Your task to perform on an android device: Search for "apple airpods pro" on walmart, select the first entry, add it to the cart, then select checkout. Image 0: 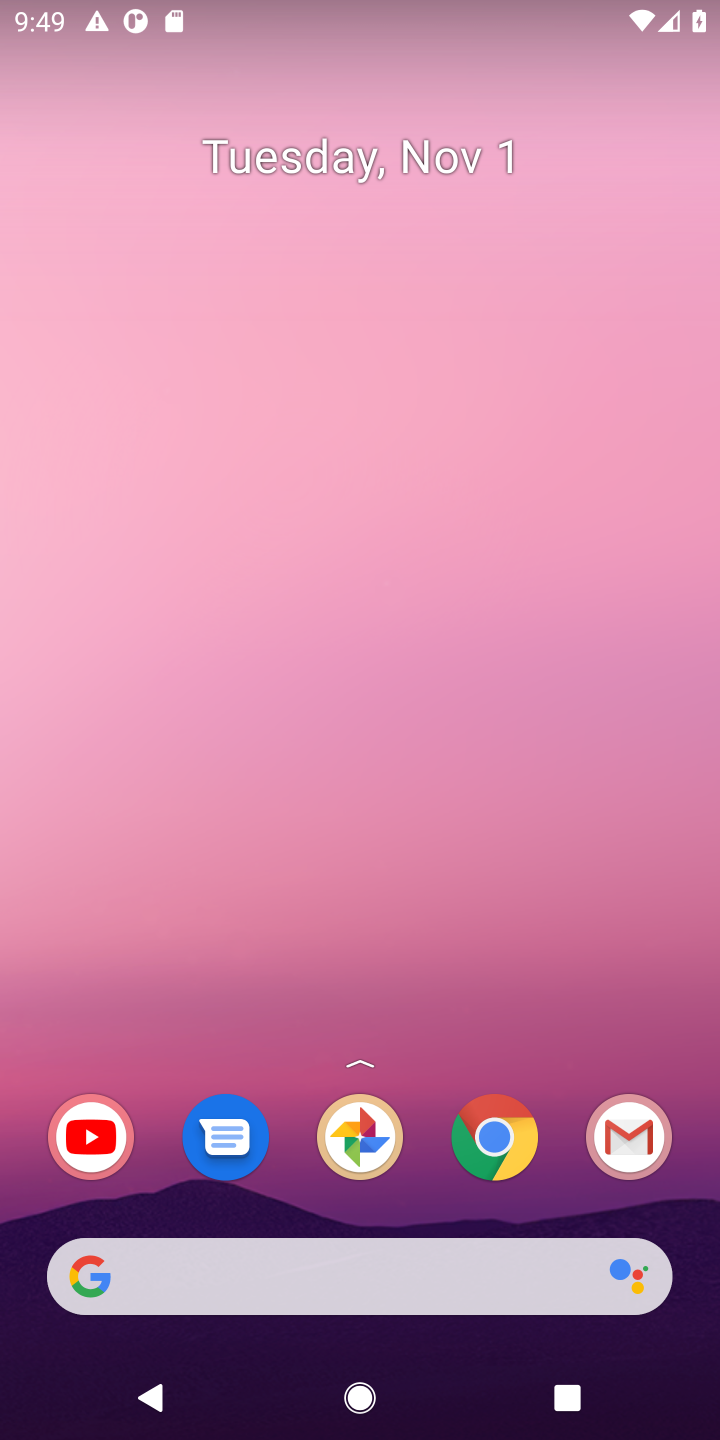
Step 0: click (320, 1259)
Your task to perform on an android device: Search for "apple airpods pro" on walmart, select the first entry, add it to the cart, then select checkout. Image 1: 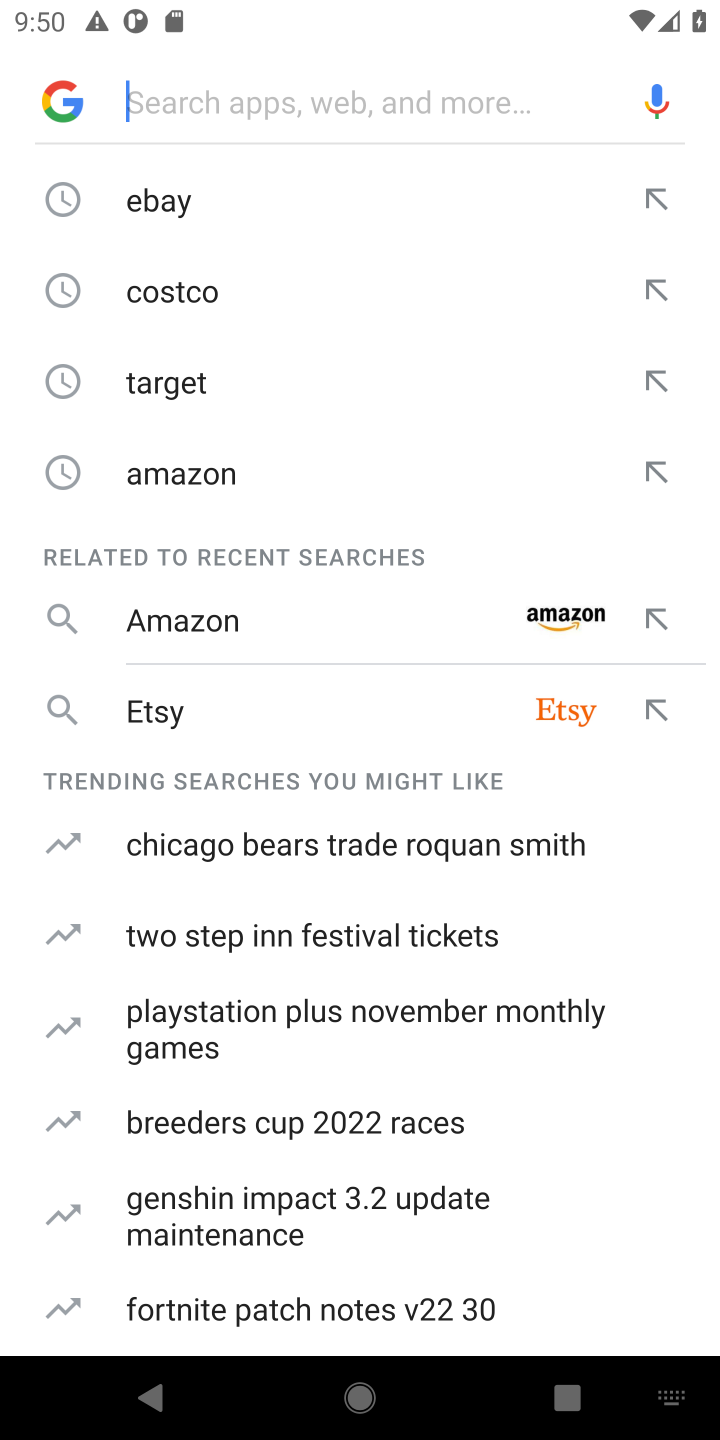
Step 1: type "walmart"
Your task to perform on an android device: Search for "apple airpods pro" on walmart, select the first entry, add it to the cart, then select checkout. Image 2: 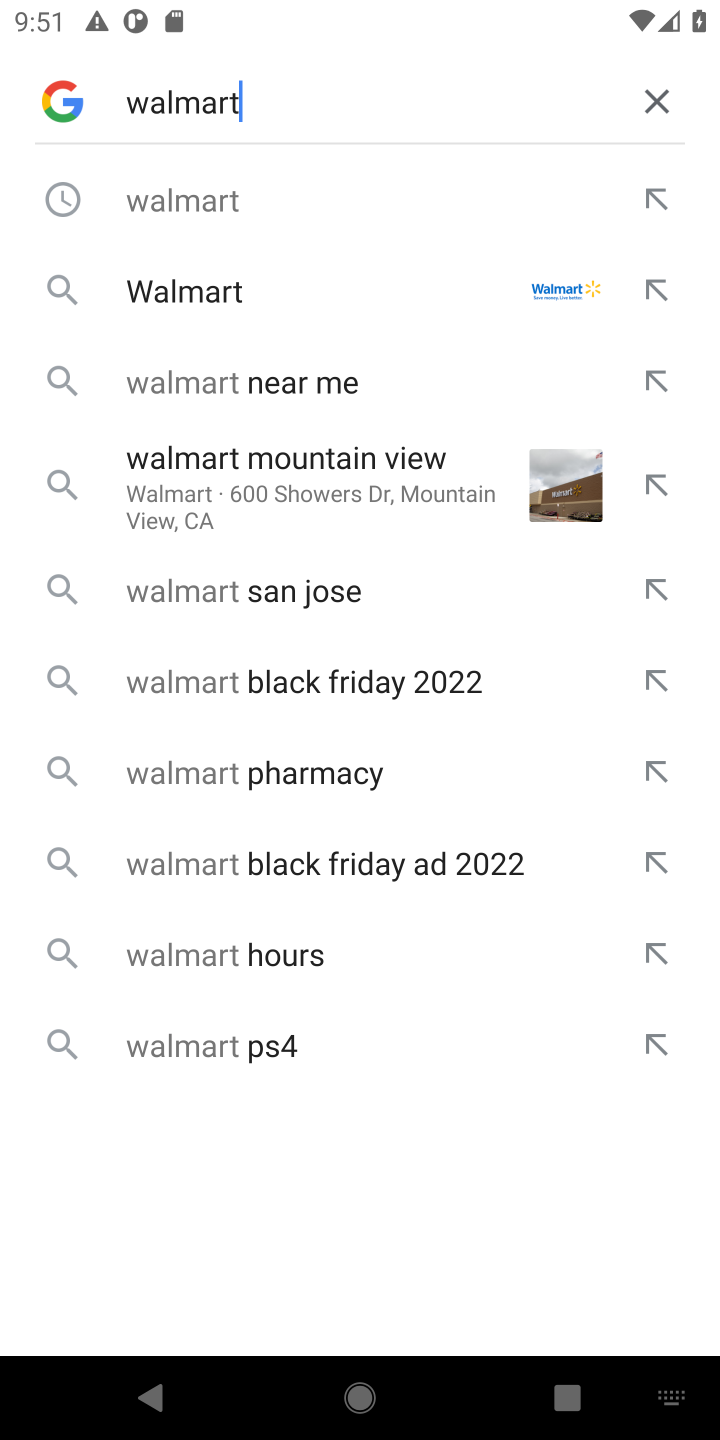
Step 2: click (230, 288)
Your task to perform on an android device: Search for "apple airpods pro" on walmart, select the first entry, add it to the cart, then select checkout. Image 3: 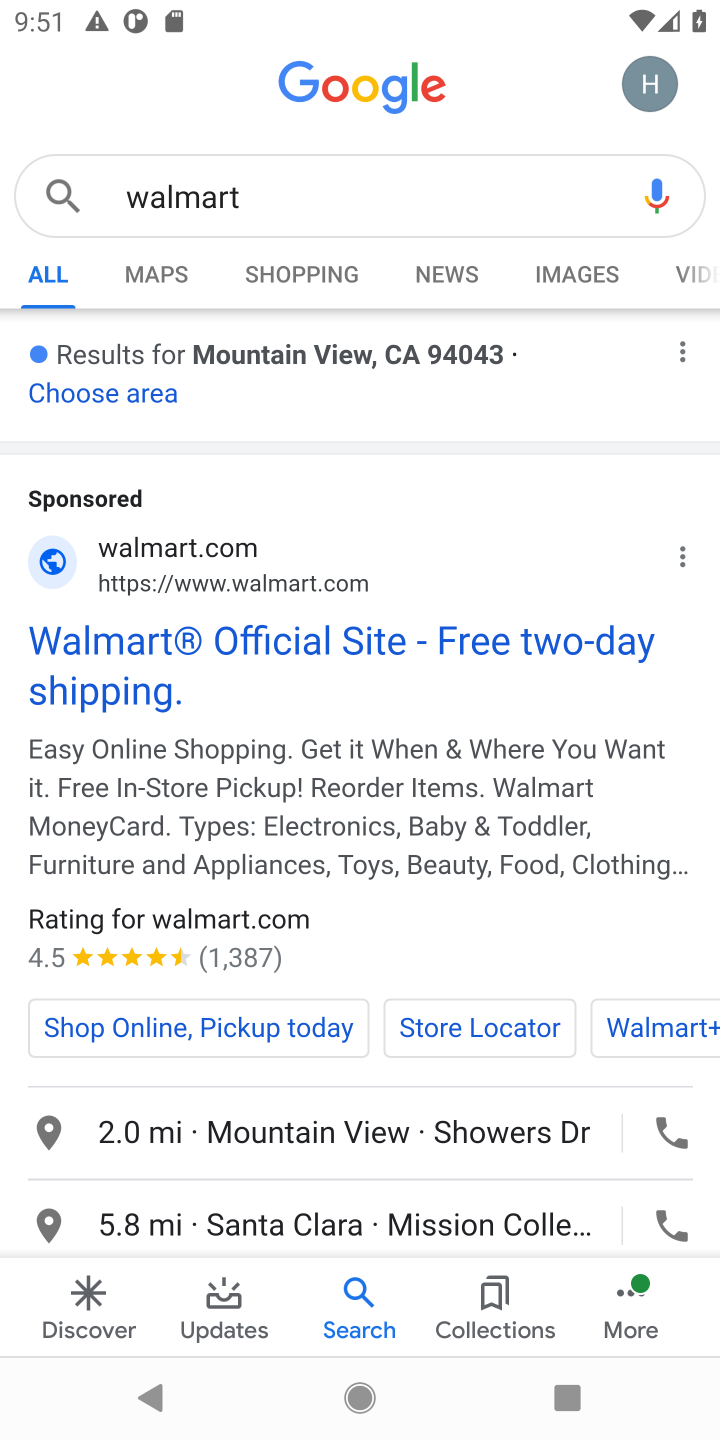
Step 3: click (162, 582)
Your task to perform on an android device: Search for "apple airpods pro" on walmart, select the first entry, add it to the cart, then select checkout. Image 4: 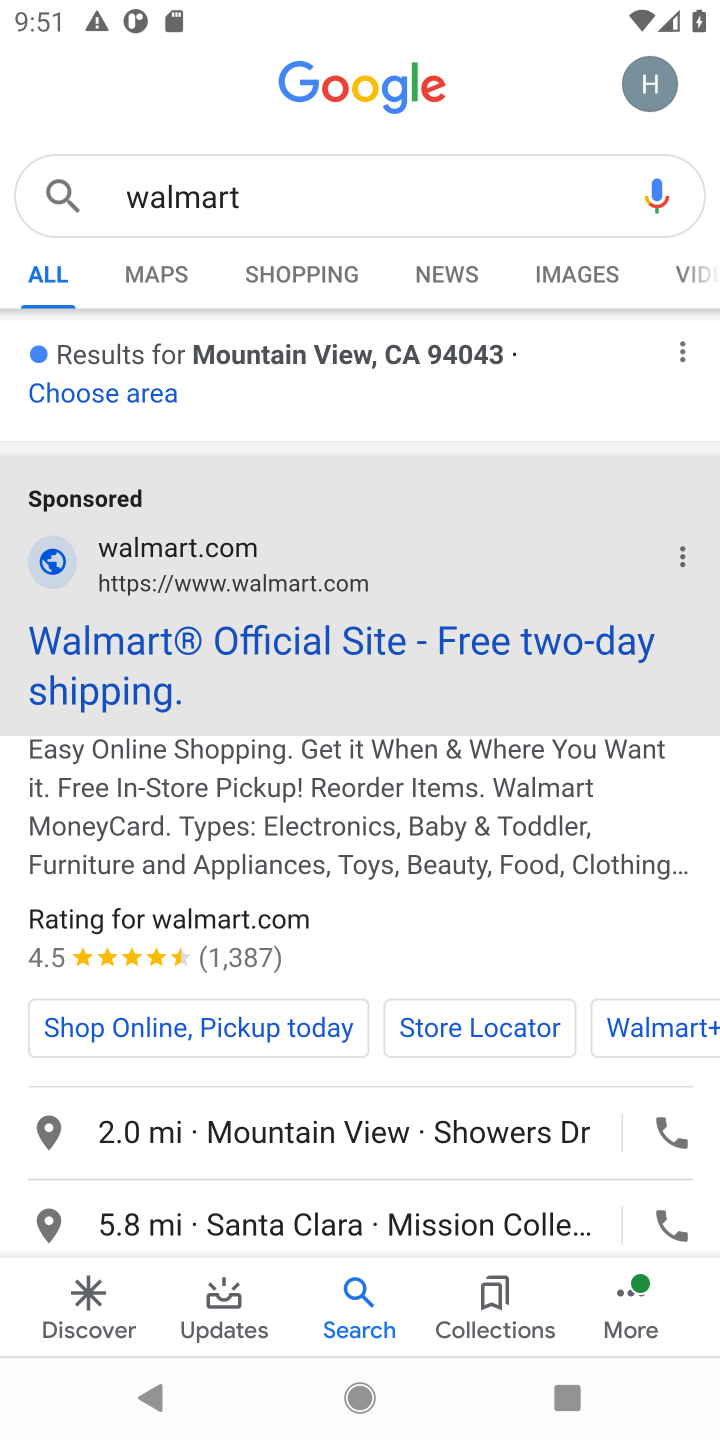
Step 4: click (162, 582)
Your task to perform on an android device: Search for "apple airpods pro" on walmart, select the first entry, add it to the cart, then select checkout. Image 5: 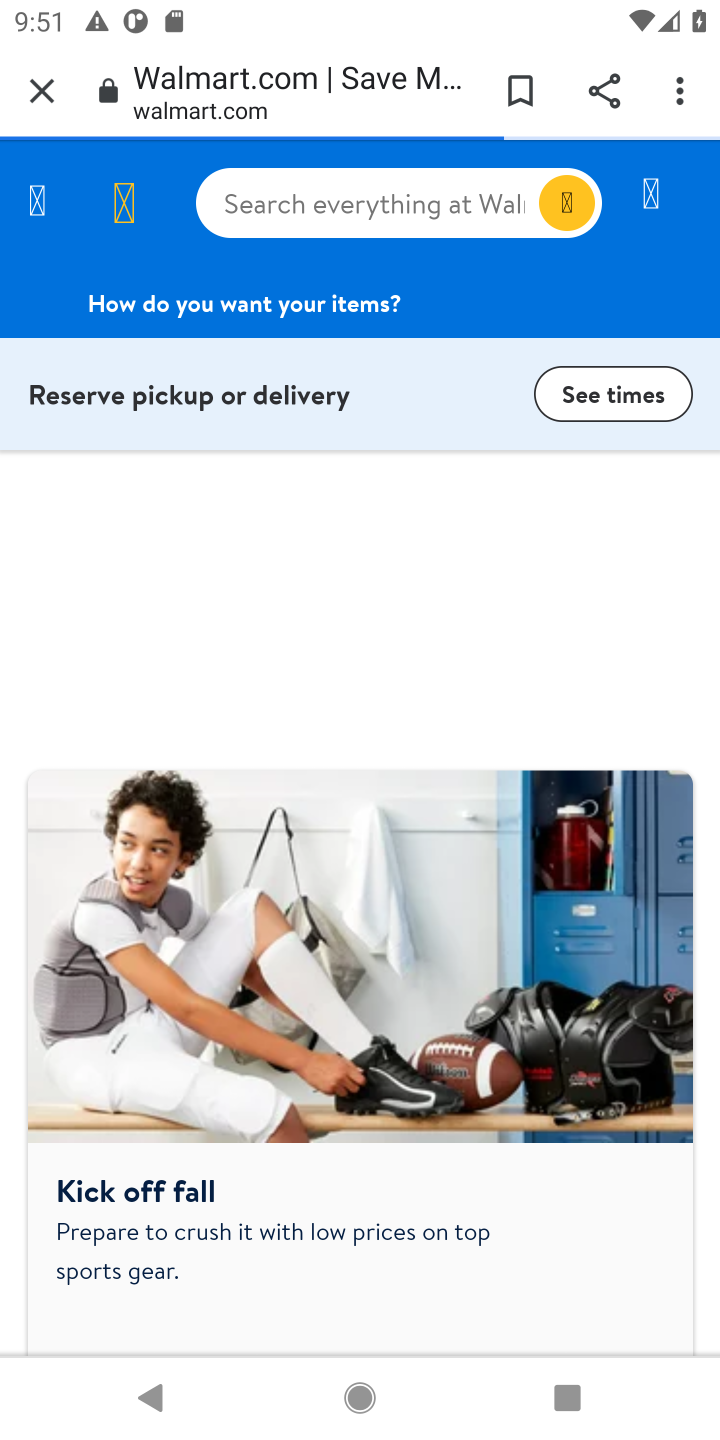
Step 5: click (170, 551)
Your task to perform on an android device: Search for "apple airpods pro" on walmart, select the first entry, add it to the cart, then select checkout. Image 6: 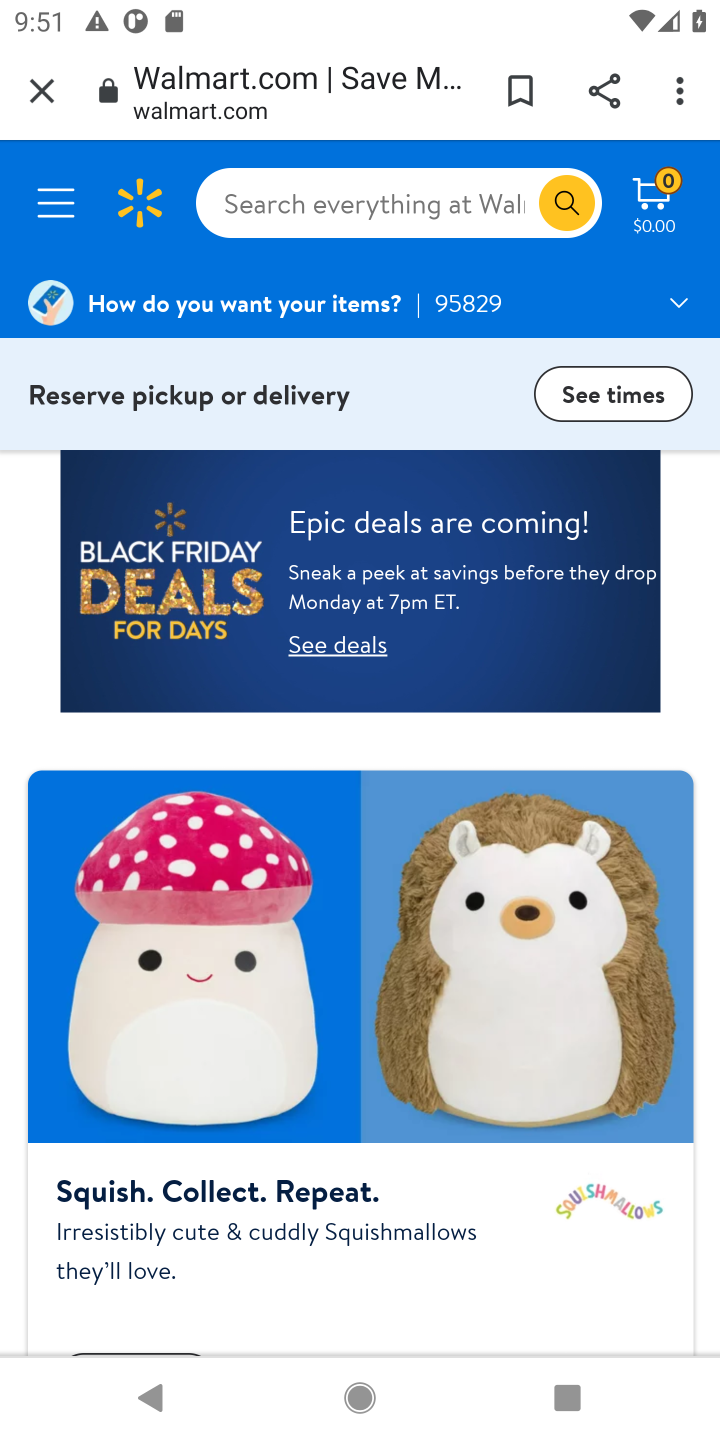
Step 6: click (434, 183)
Your task to perform on an android device: Search for "apple airpods pro" on walmart, select the first entry, add it to the cart, then select checkout. Image 7: 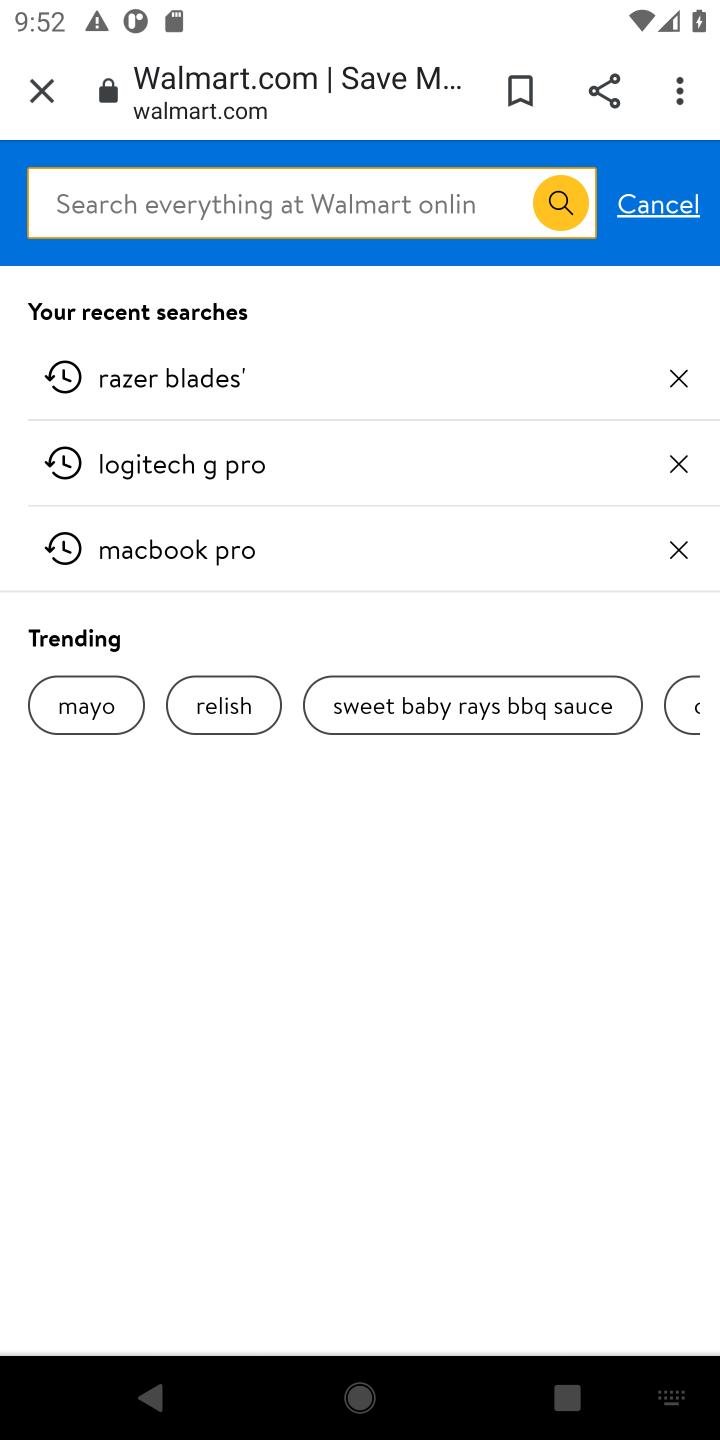
Step 7: type "apple airpods pro"
Your task to perform on an android device: Search for "apple airpods pro" on walmart, select the first entry, add it to the cart, then select checkout. Image 8: 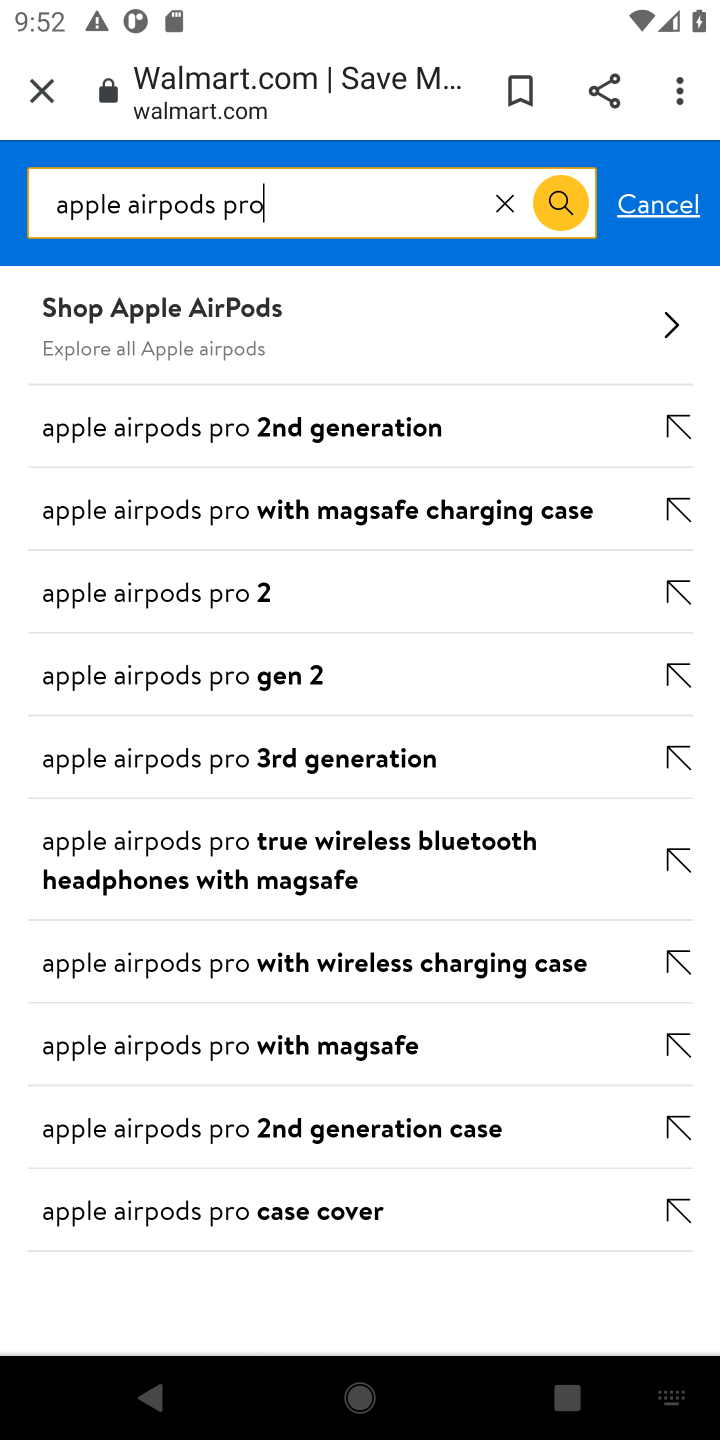
Step 8: click (302, 339)
Your task to perform on an android device: Search for "apple airpods pro" on walmart, select the first entry, add it to the cart, then select checkout. Image 9: 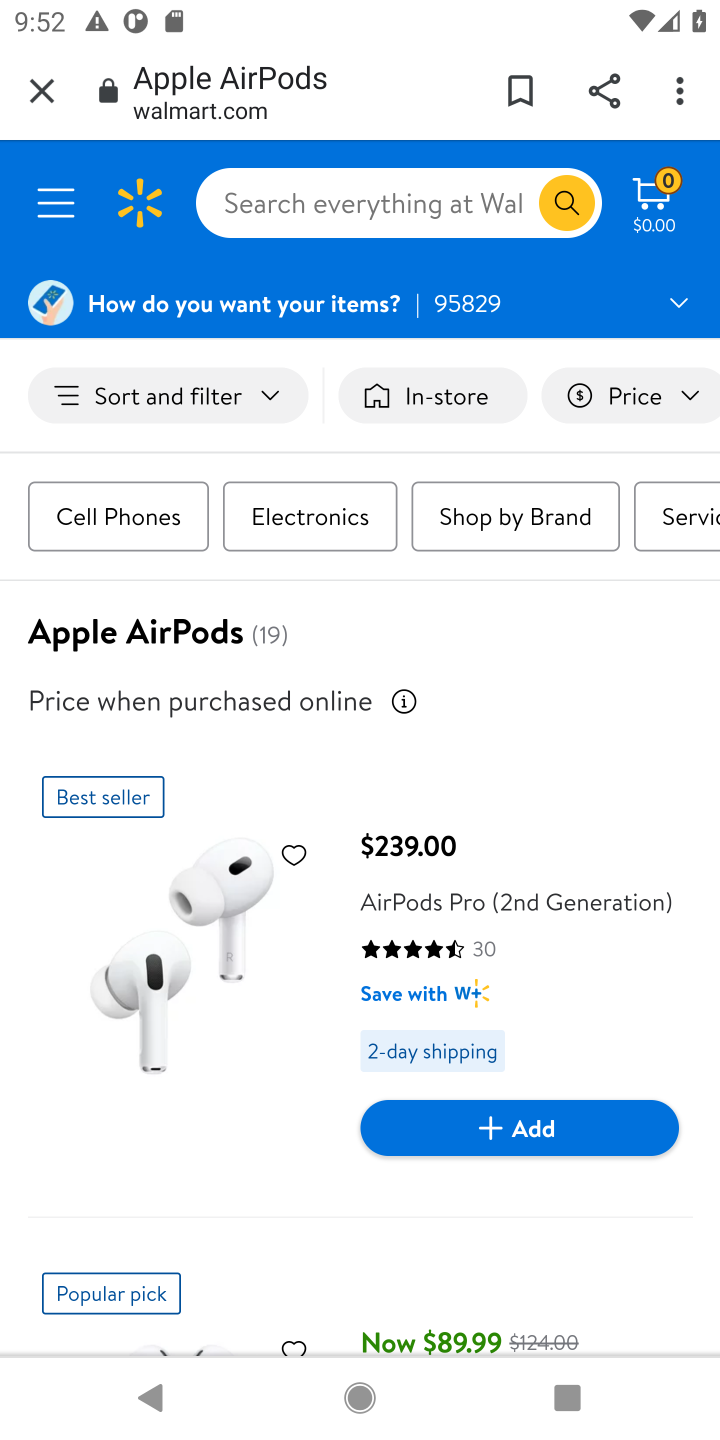
Step 9: click (539, 1120)
Your task to perform on an android device: Search for "apple airpods pro" on walmart, select the first entry, add it to the cart, then select checkout. Image 10: 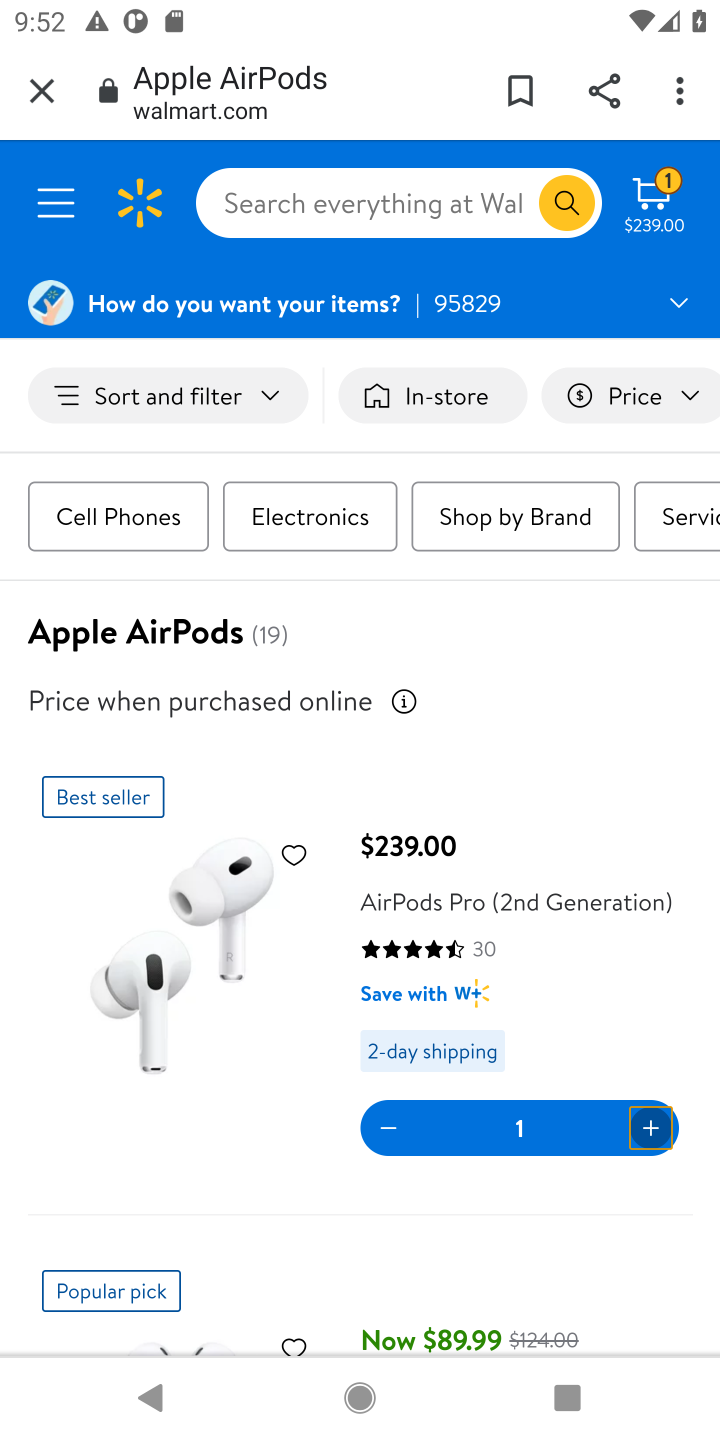
Step 10: click (661, 208)
Your task to perform on an android device: Search for "apple airpods pro" on walmart, select the first entry, add it to the cart, then select checkout. Image 11: 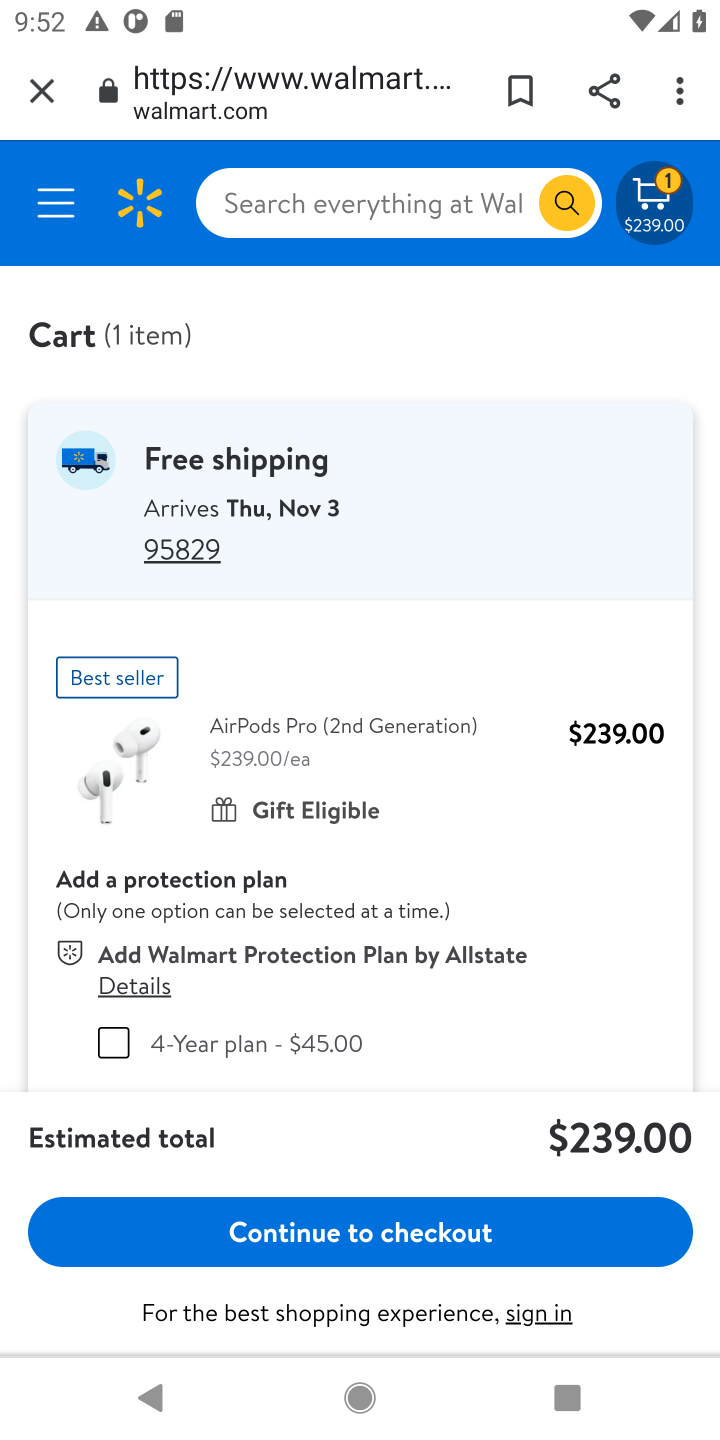
Step 11: click (314, 1214)
Your task to perform on an android device: Search for "apple airpods pro" on walmart, select the first entry, add it to the cart, then select checkout. Image 12: 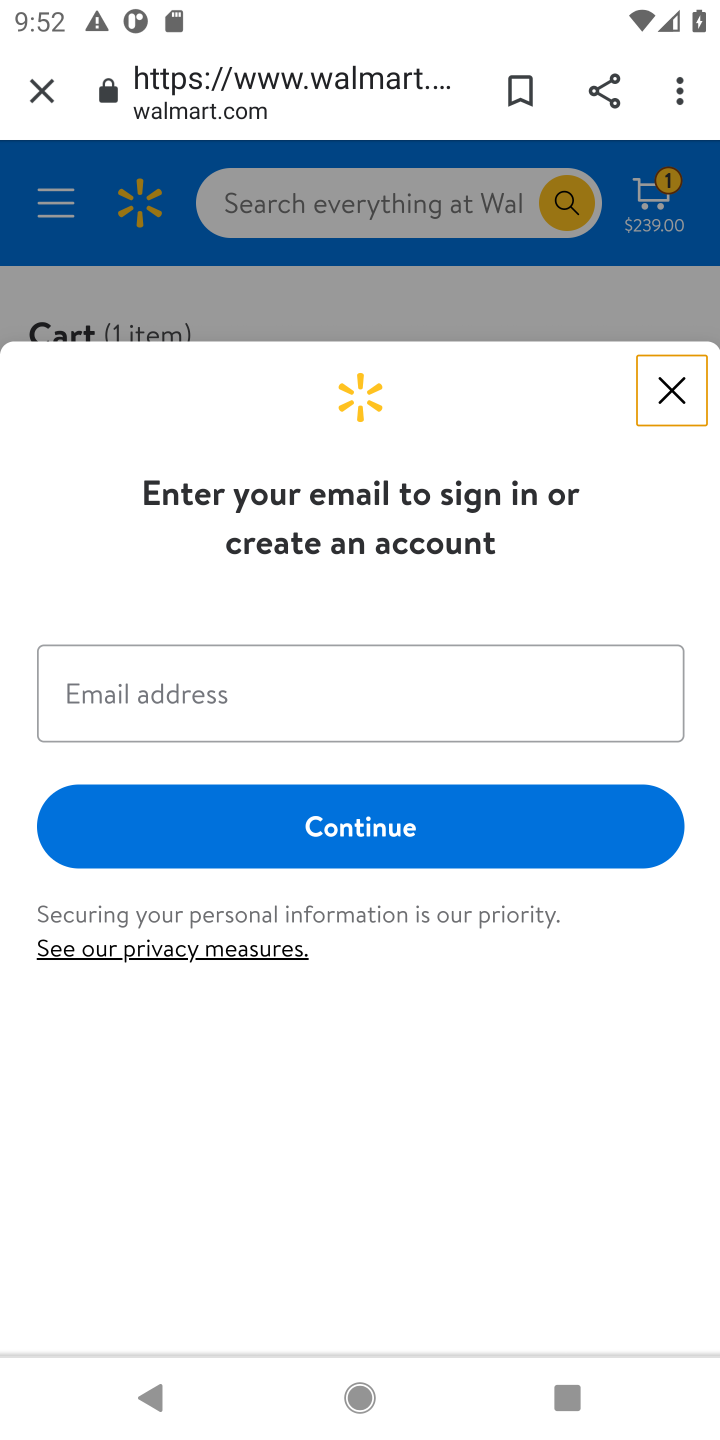
Step 12: task complete